Your task to perform on an android device: Show me popular videos on Youtube Image 0: 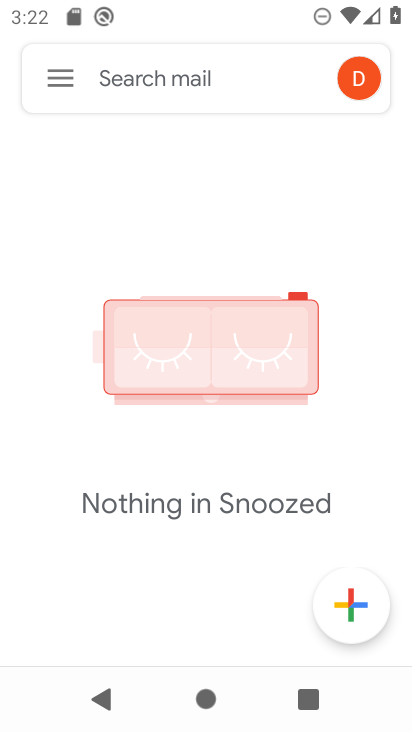
Step 0: press back button
Your task to perform on an android device: Show me popular videos on Youtube Image 1: 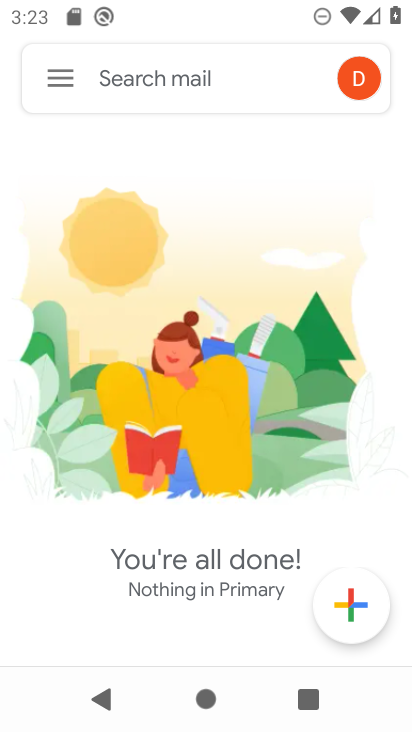
Step 1: press back button
Your task to perform on an android device: Show me popular videos on Youtube Image 2: 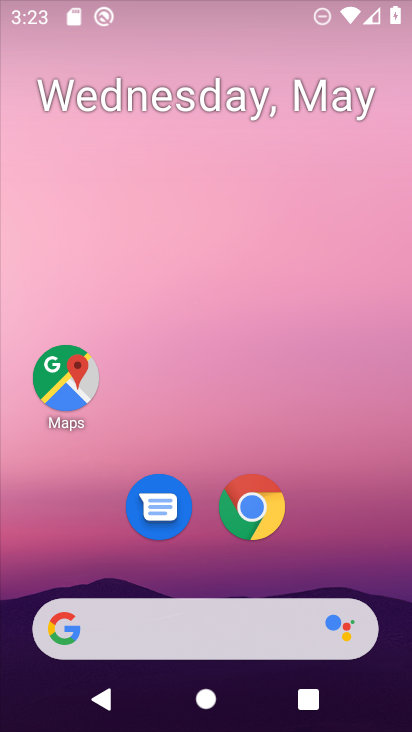
Step 2: drag from (238, 556) to (272, 112)
Your task to perform on an android device: Show me popular videos on Youtube Image 3: 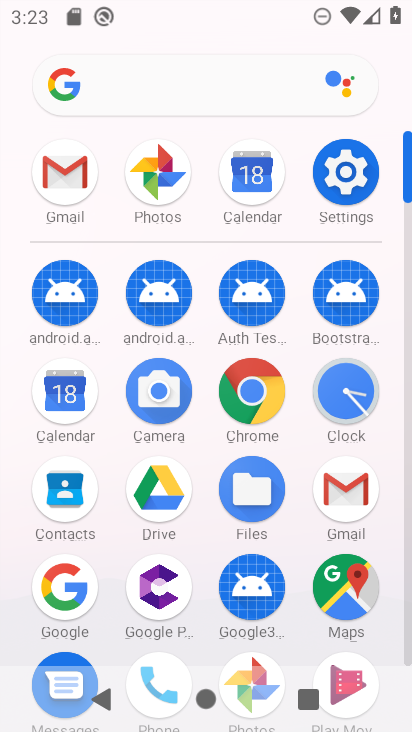
Step 3: drag from (238, 633) to (292, 4)
Your task to perform on an android device: Show me popular videos on Youtube Image 4: 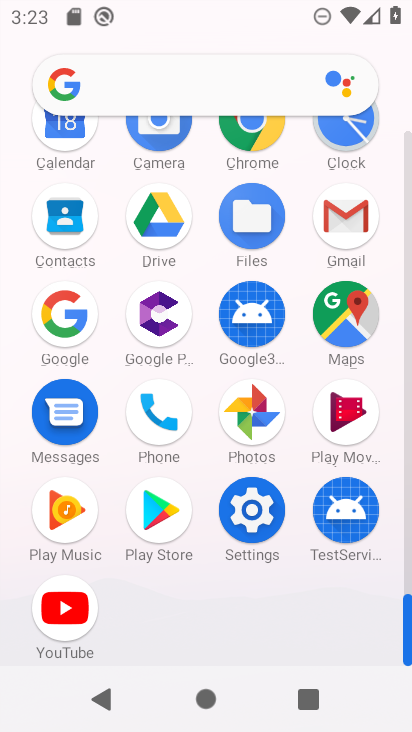
Step 4: click (62, 612)
Your task to perform on an android device: Show me popular videos on Youtube Image 5: 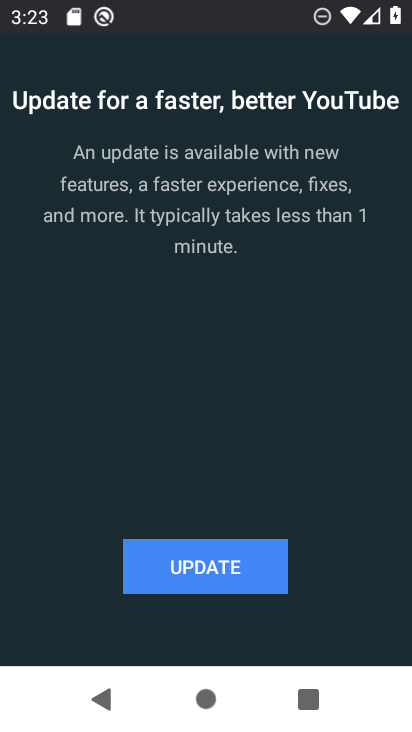
Step 5: click (201, 554)
Your task to perform on an android device: Show me popular videos on Youtube Image 6: 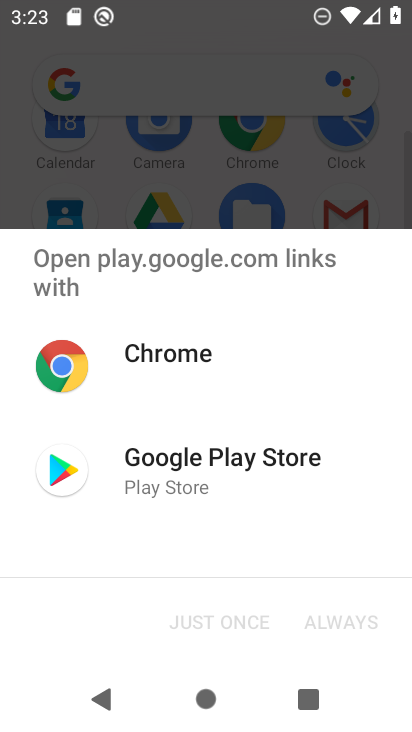
Step 6: click (169, 454)
Your task to perform on an android device: Show me popular videos on Youtube Image 7: 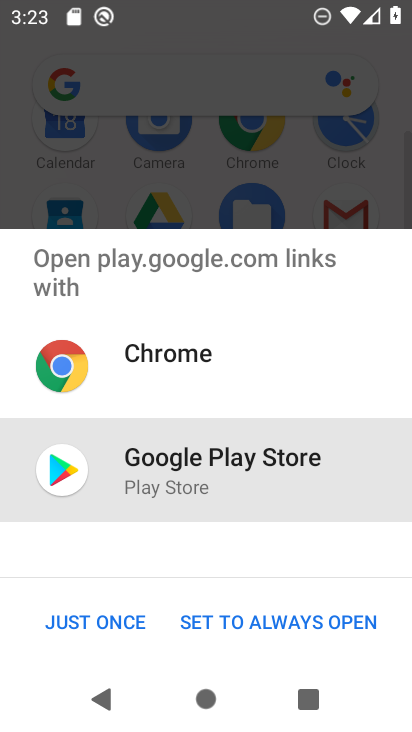
Step 7: click (217, 614)
Your task to perform on an android device: Show me popular videos on Youtube Image 8: 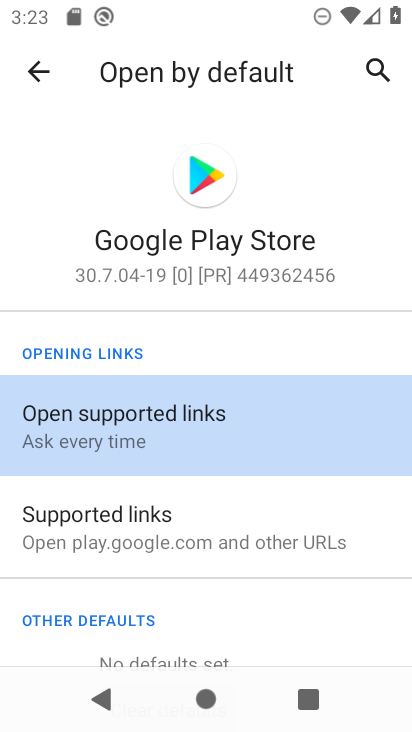
Step 8: click (37, 75)
Your task to perform on an android device: Show me popular videos on Youtube Image 9: 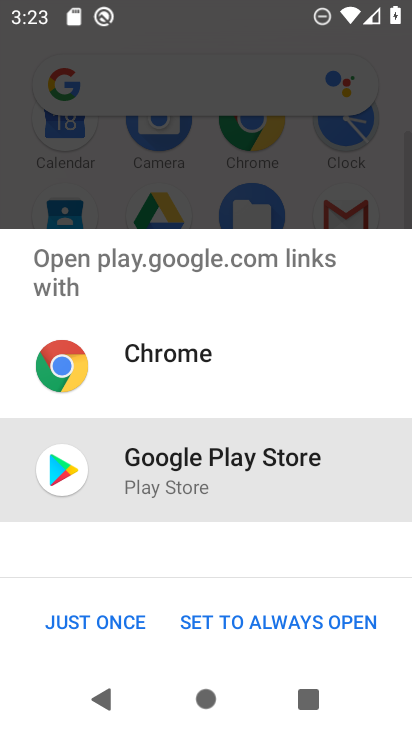
Step 9: click (61, 603)
Your task to perform on an android device: Show me popular videos on Youtube Image 10: 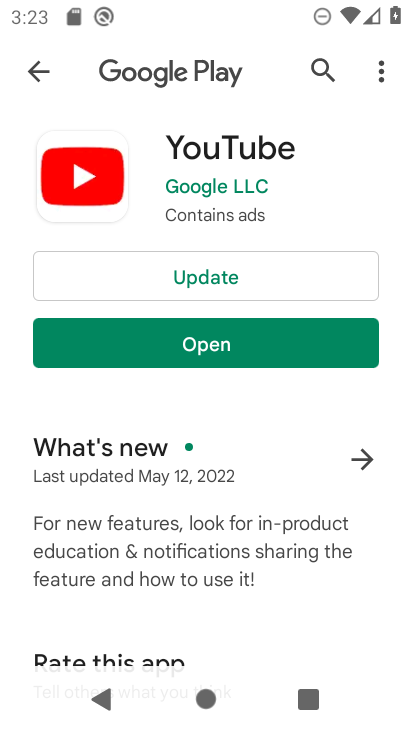
Step 10: click (195, 262)
Your task to perform on an android device: Show me popular videos on Youtube Image 11: 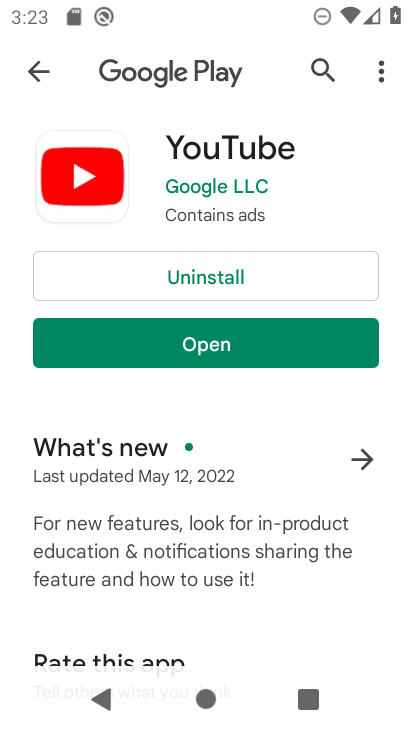
Step 11: click (225, 354)
Your task to perform on an android device: Show me popular videos on Youtube Image 12: 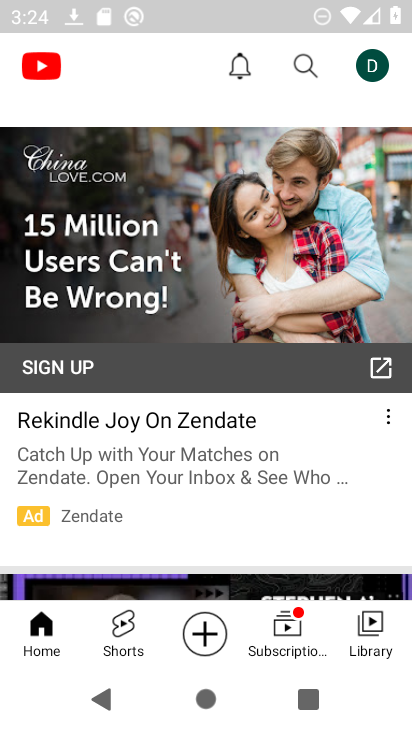
Step 12: drag from (156, 212) to (154, 540)
Your task to perform on an android device: Show me popular videos on Youtube Image 13: 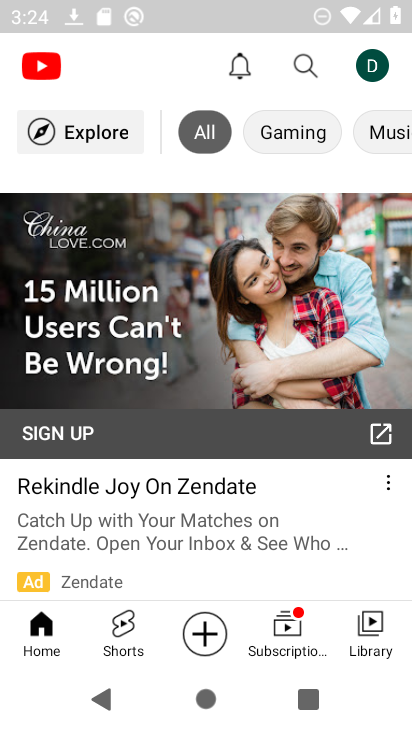
Step 13: click (99, 120)
Your task to perform on an android device: Show me popular videos on Youtube Image 14: 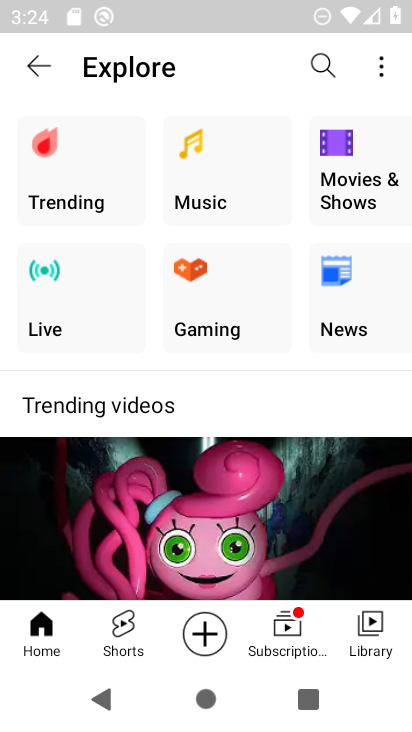
Step 14: task complete